Your task to perform on an android device: see creations saved in the google photos Image 0: 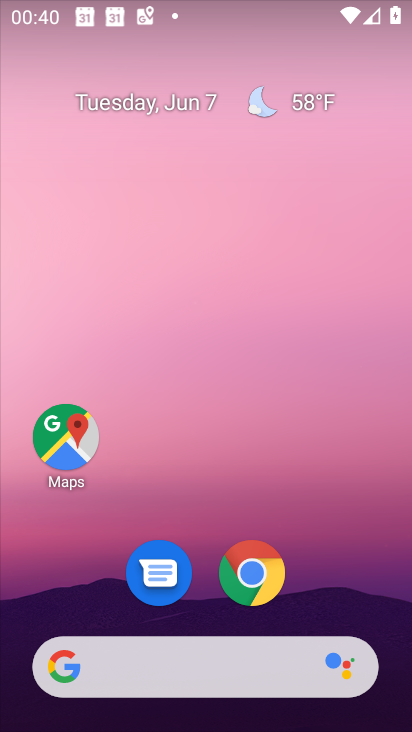
Step 0: drag from (337, 557) to (260, 2)
Your task to perform on an android device: see creations saved in the google photos Image 1: 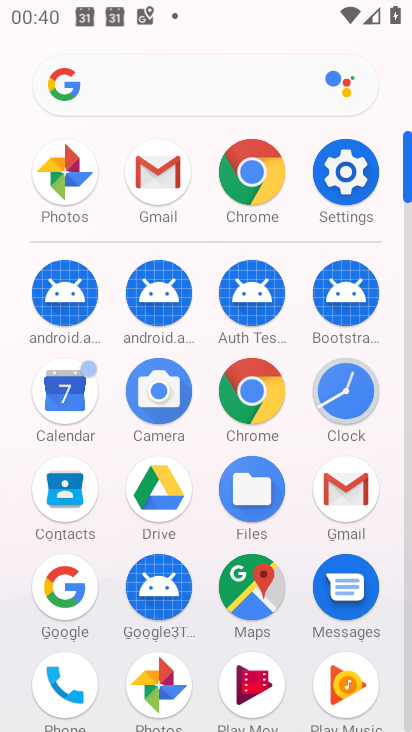
Step 1: click (79, 178)
Your task to perform on an android device: see creations saved in the google photos Image 2: 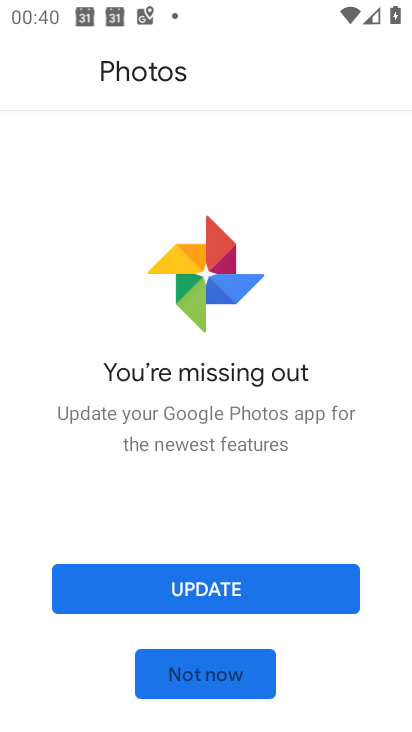
Step 2: click (175, 576)
Your task to perform on an android device: see creations saved in the google photos Image 3: 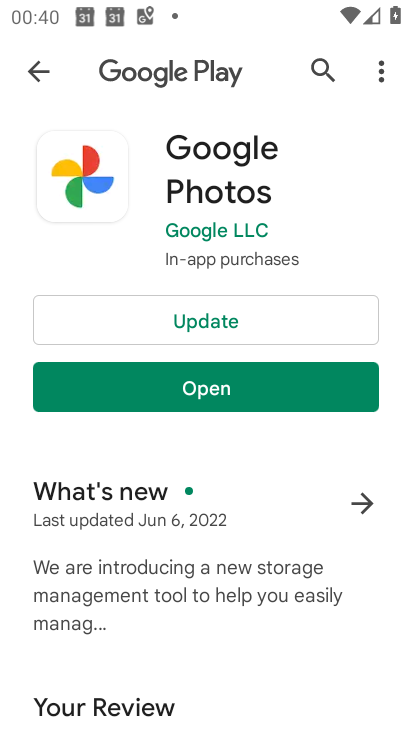
Step 3: click (205, 333)
Your task to perform on an android device: see creations saved in the google photos Image 4: 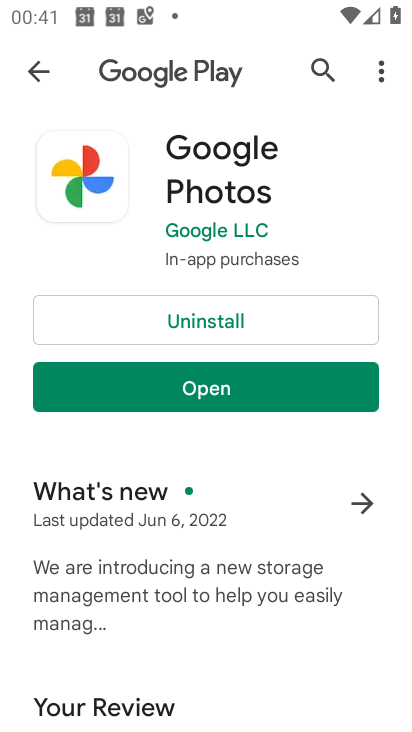
Step 4: click (274, 390)
Your task to perform on an android device: see creations saved in the google photos Image 5: 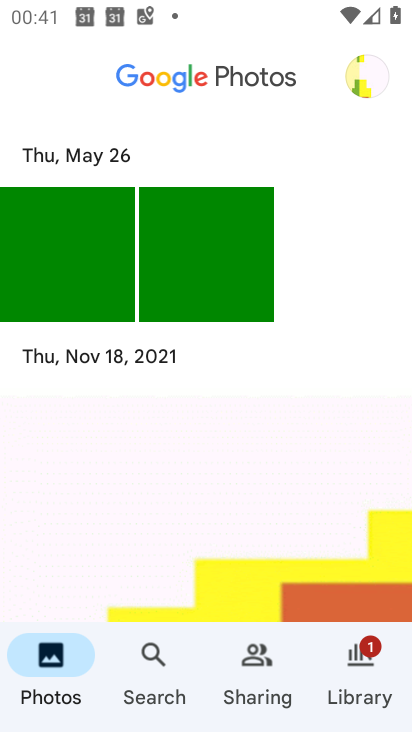
Step 5: click (157, 681)
Your task to perform on an android device: see creations saved in the google photos Image 6: 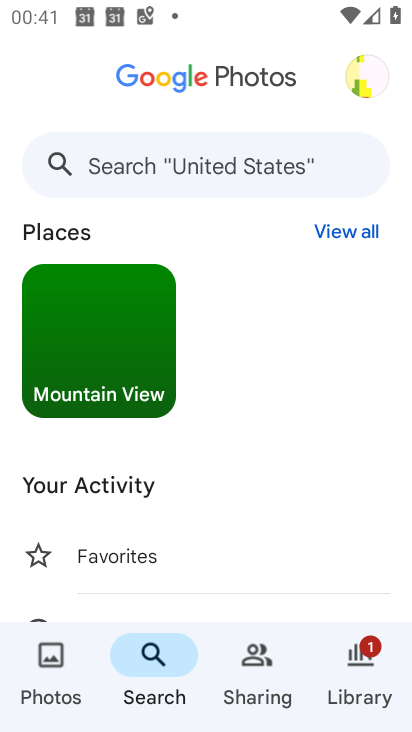
Step 6: drag from (272, 539) to (103, 15)
Your task to perform on an android device: see creations saved in the google photos Image 7: 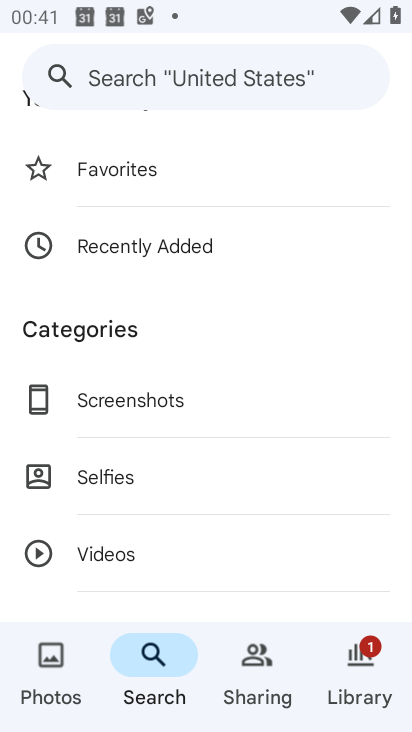
Step 7: drag from (191, 354) to (167, 20)
Your task to perform on an android device: see creations saved in the google photos Image 8: 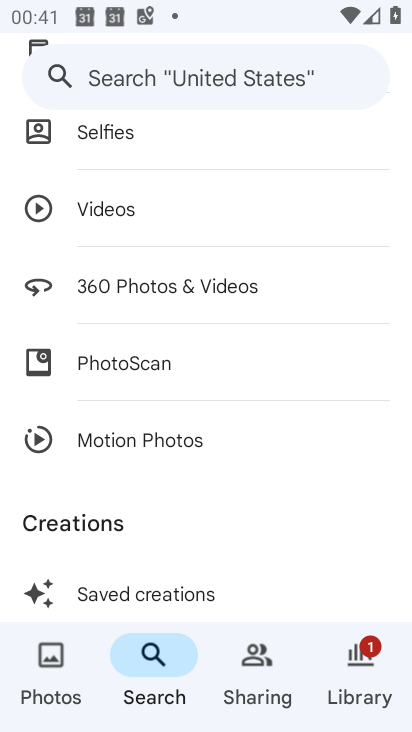
Step 8: click (135, 599)
Your task to perform on an android device: see creations saved in the google photos Image 9: 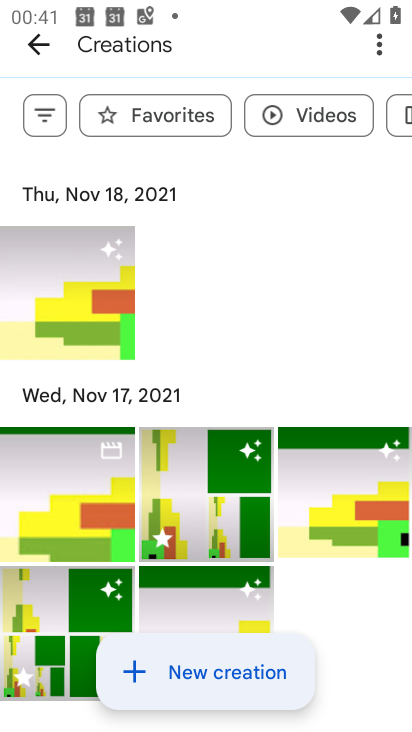
Step 9: task complete